Your task to perform on an android device: Open Yahoo.com Image 0: 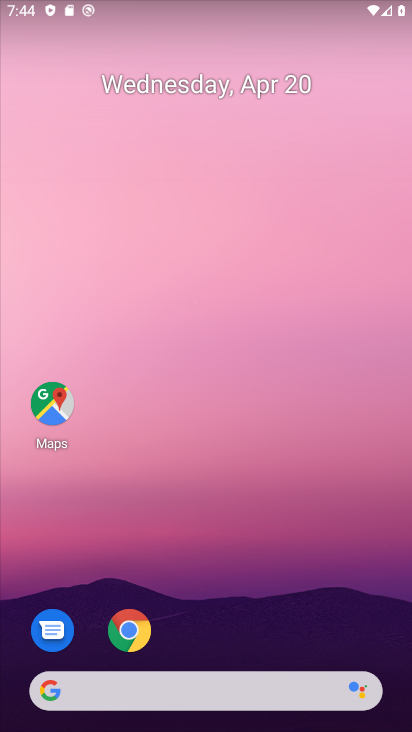
Step 0: click (212, 211)
Your task to perform on an android device: Open Yahoo.com Image 1: 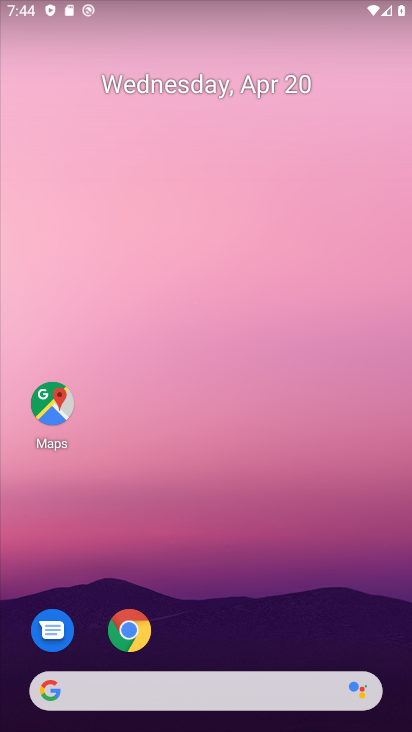
Step 1: drag from (236, 638) to (196, 191)
Your task to perform on an android device: Open Yahoo.com Image 2: 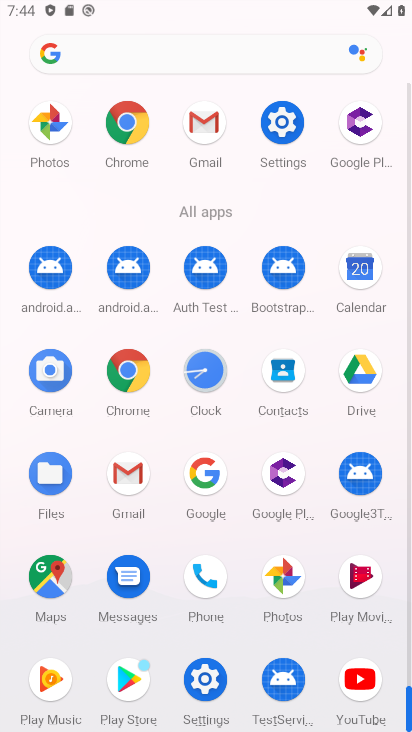
Step 2: click (114, 138)
Your task to perform on an android device: Open Yahoo.com Image 3: 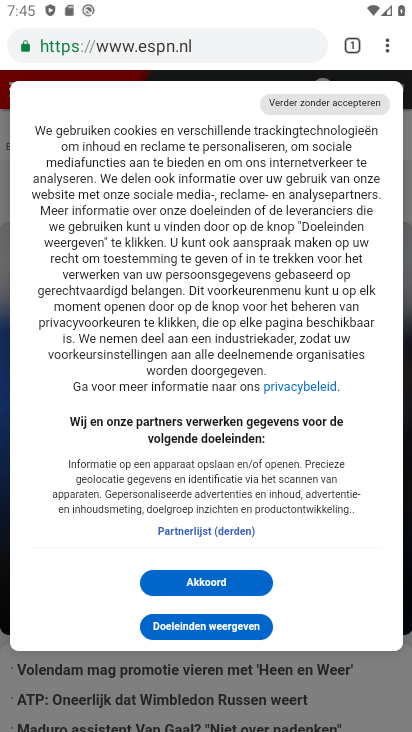
Step 3: drag from (307, 65) to (304, 352)
Your task to perform on an android device: Open Yahoo.com Image 4: 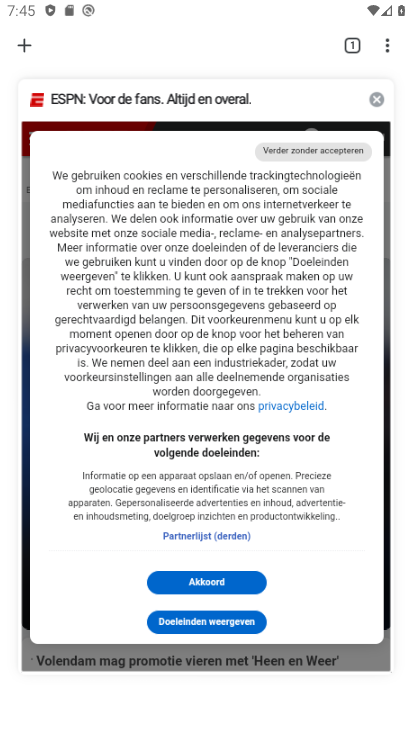
Step 4: click (21, 48)
Your task to perform on an android device: Open Yahoo.com Image 5: 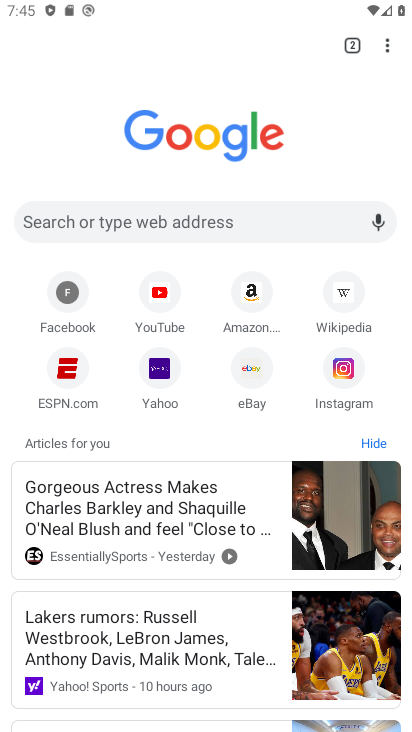
Step 5: click (166, 381)
Your task to perform on an android device: Open Yahoo.com Image 6: 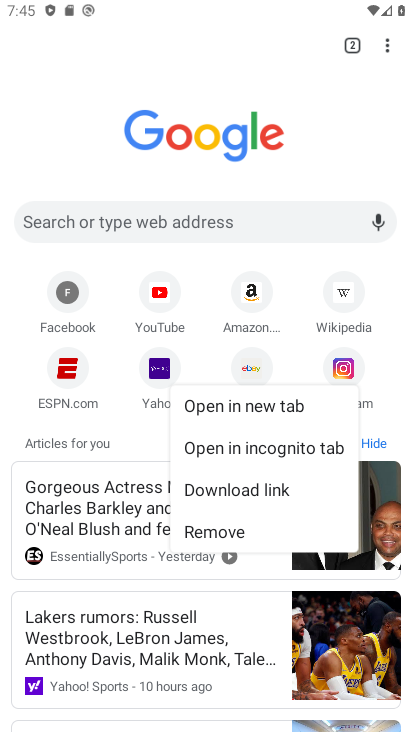
Step 6: click (161, 368)
Your task to perform on an android device: Open Yahoo.com Image 7: 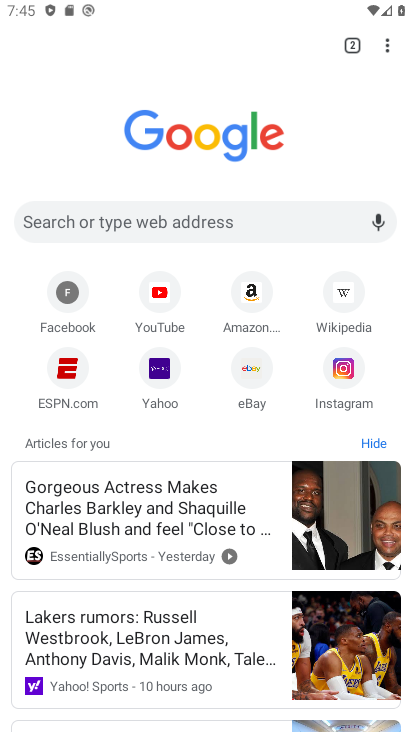
Step 7: click (158, 397)
Your task to perform on an android device: Open Yahoo.com Image 8: 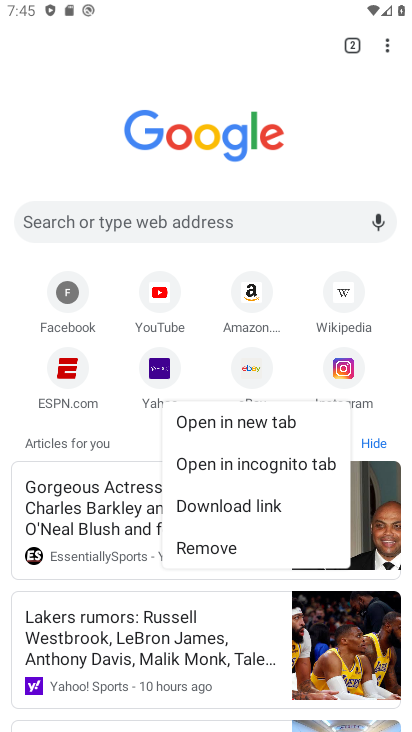
Step 8: click (150, 378)
Your task to perform on an android device: Open Yahoo.com Image 9: 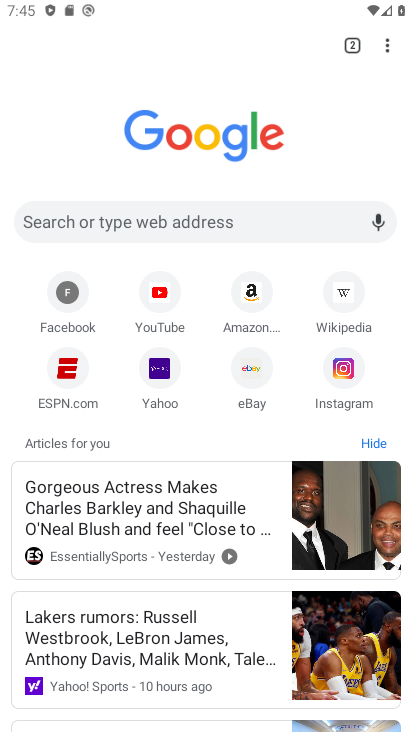
Step 9: click (159, 378)
Your task to perform on an android device: Open Yahoo.com Image 10: 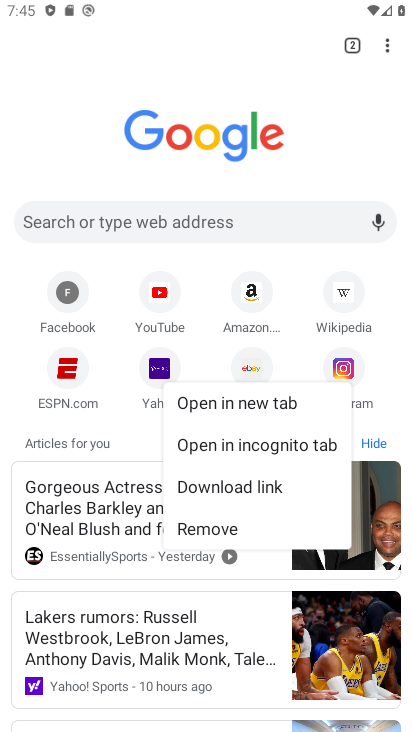
Step 10: click (154, 377)
Your task to perform on an android device: Open Yahoo.com Image 11: 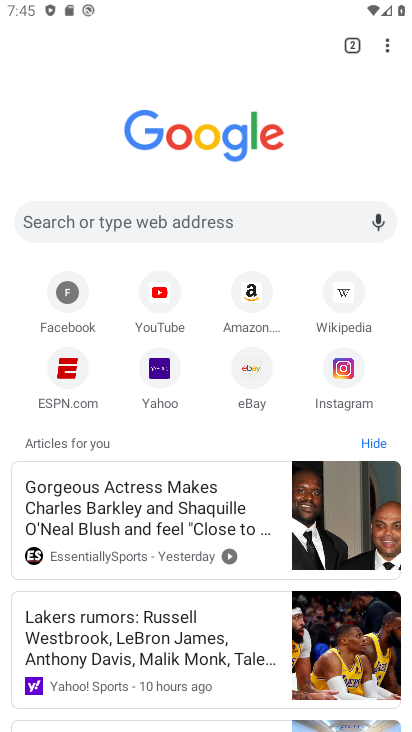
Step 11: click (164, 380)
Your task to perform on an android device: Open Yahoo.com Image 12: 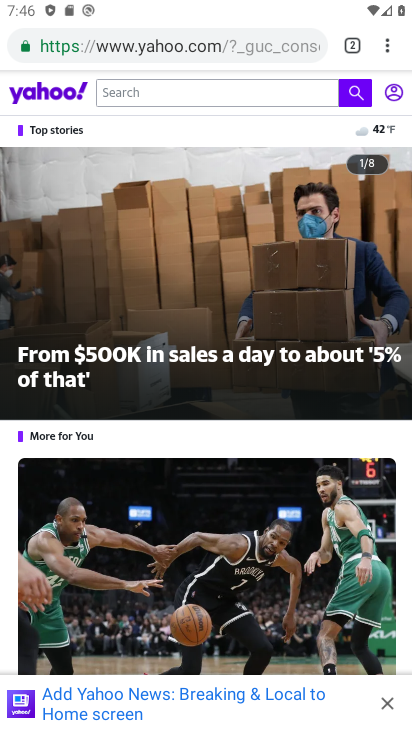
Step 12: task complete